Your task to perform on an android device: Open Android settings Image 0: 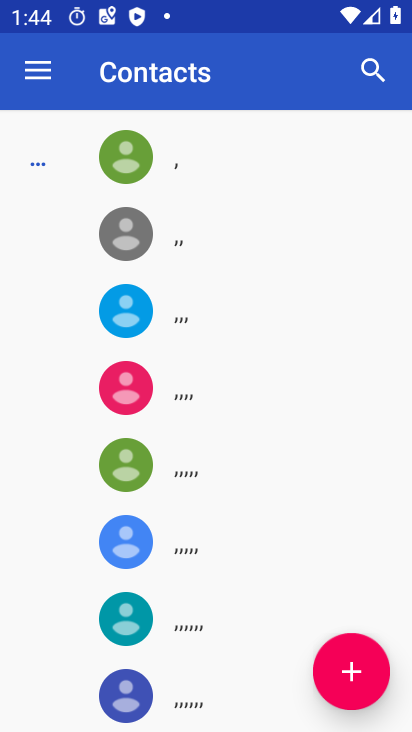
Step 0: press home button
Your task to perform on an android device: Open Android settings Image 1: 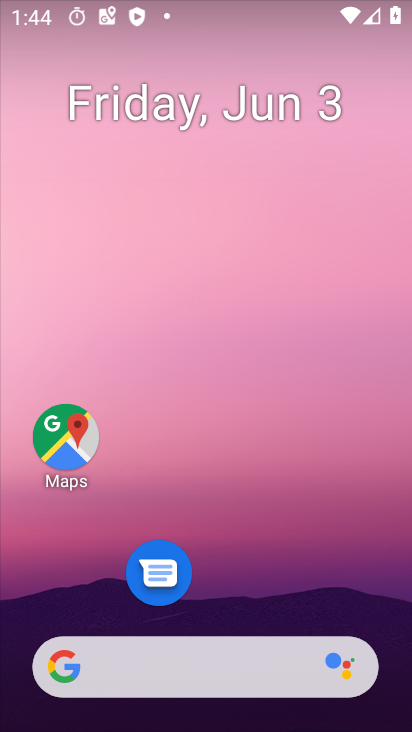
Step 1: drag from (263, 630) to (272, 185)
Your task to perform on an android device: Open Android settings Image 2: 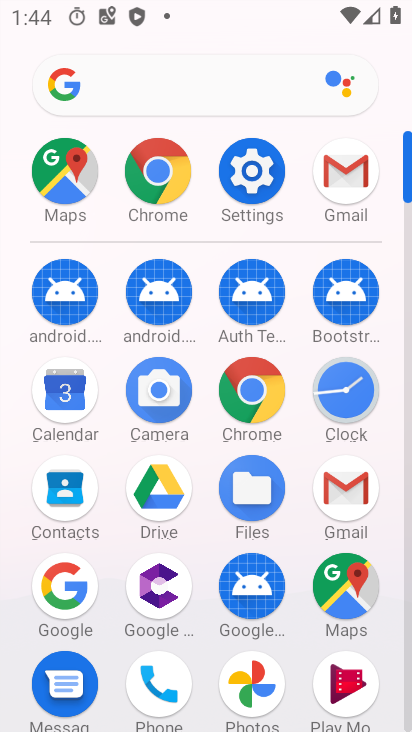
Step 2: click (246, 172)
Your task to perform on an android device: Open Android settings Image 3: 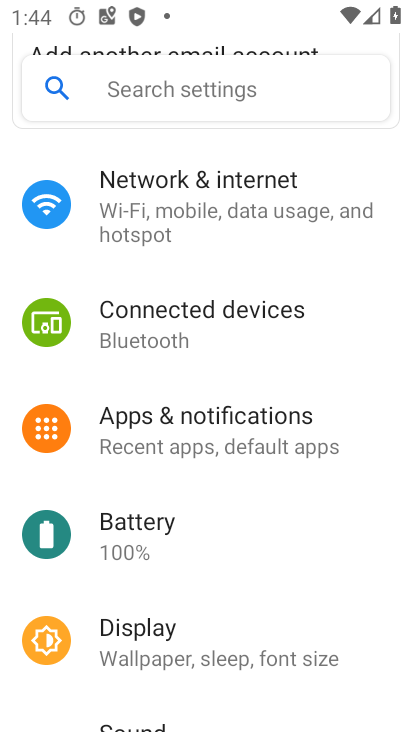
Step 3: drag from (306, 682) to (412, 190)
Your task to perform on an android device: Open Android settings Image 4: 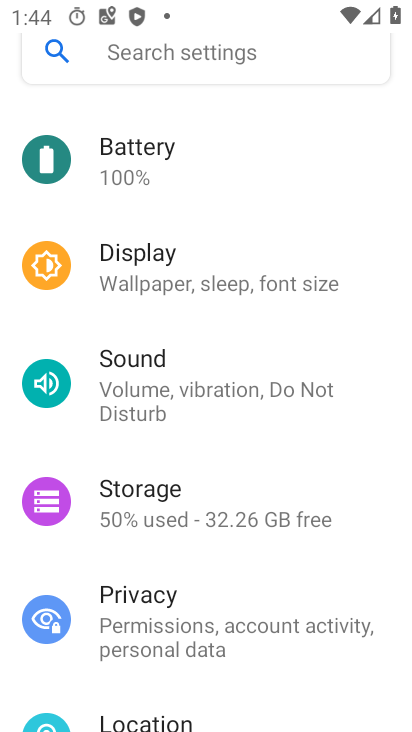
Step 4: drag from (317, 626) to (283, 2)
Your task to perform on an android device: Open Android settings Image 5: 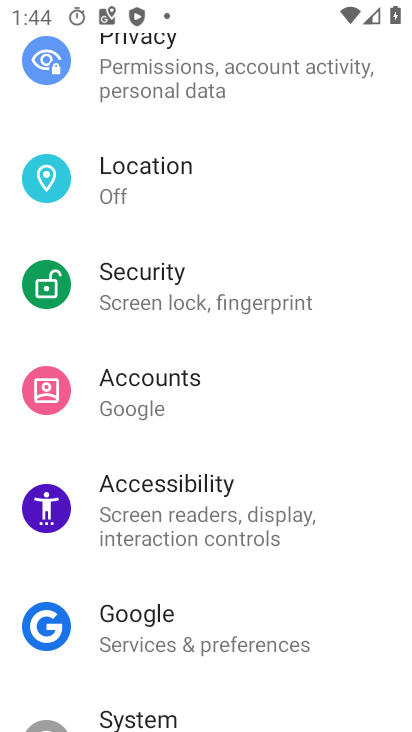
Step 5: drag from (282, 686) to (312, 245)
Your task to perform on an android device: Open Android settings Image 6: 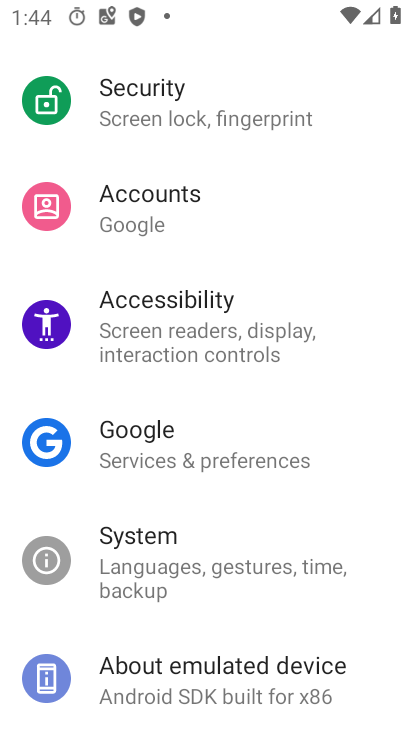
Step 6: click (194, 686)
Your task to perform on an android device: Open Android settings Image 7: 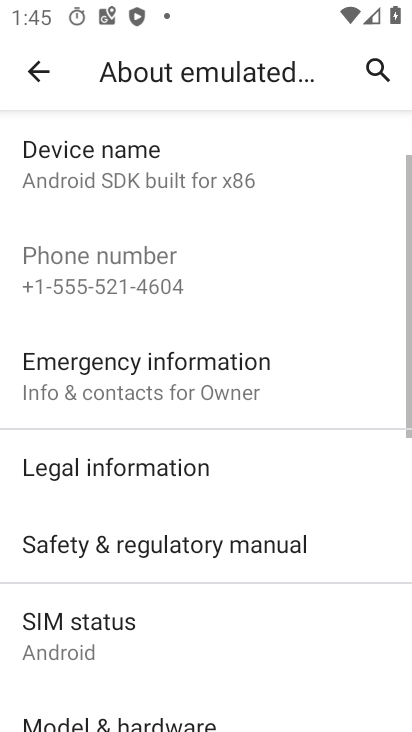
Step 7: drag from (193, 700) to (230, 316)
Your task to perform on an android device: Open Android settings Image 8: 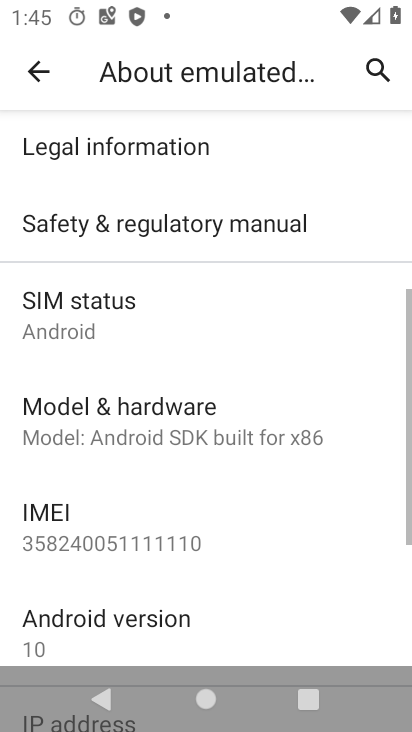
Step 8: drag from (219, 609) to (236, 409)
Your task to perform on an android device: Open Android settings Image 9: 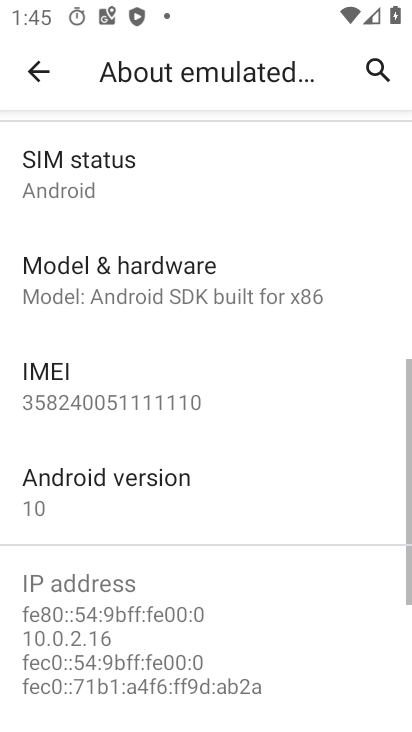
Step 9: click (173, 463)
Your task to perform on an android device: Open Android settings Image 10: 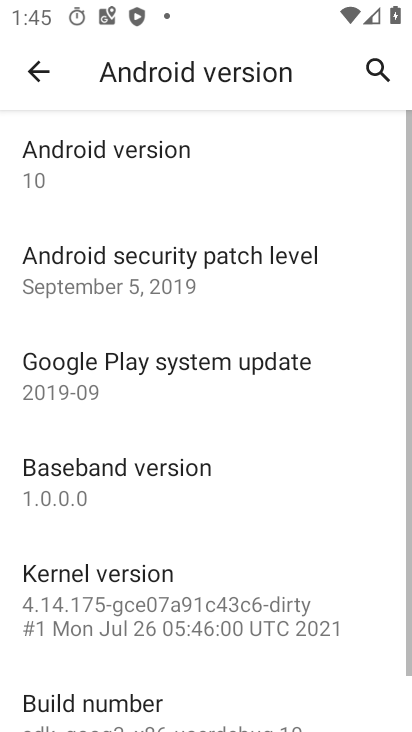
Step 10: task complete